Your task to perform on an android device: How do I get to the nearest Subway? Image 0: 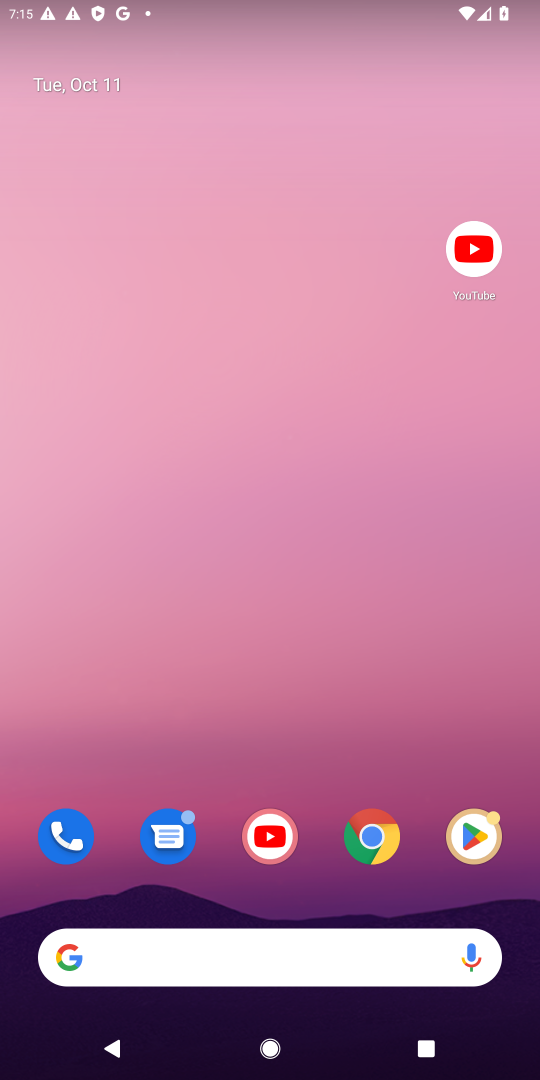
Step 0: click (375, 835)
Your task to perform on an android device: How do I get to the nearest Subway? Image 1: 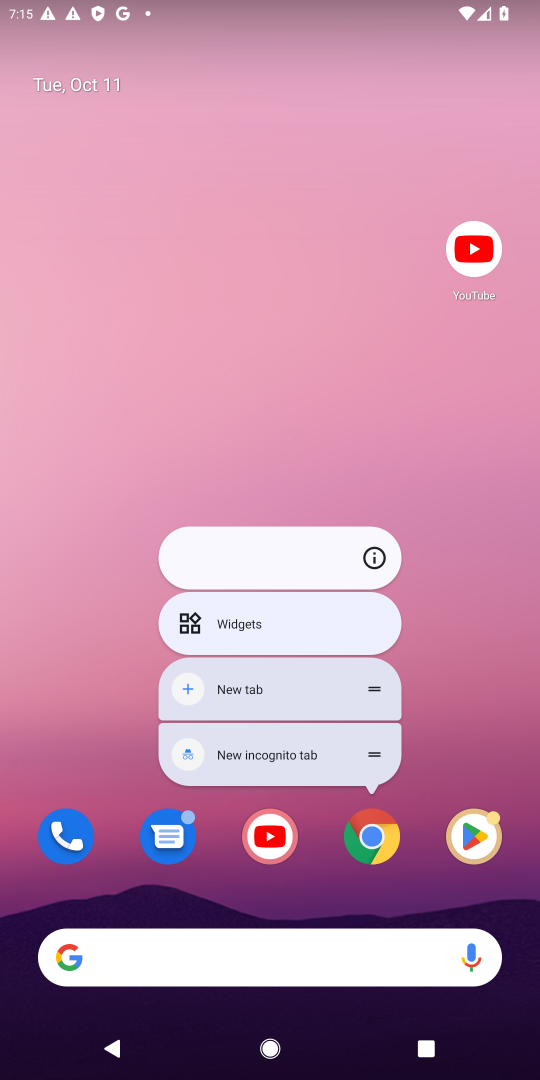
Step 1: click (372, 846)
Your task to perform on an android device: How do I get to the nearest Subway? Image 2: 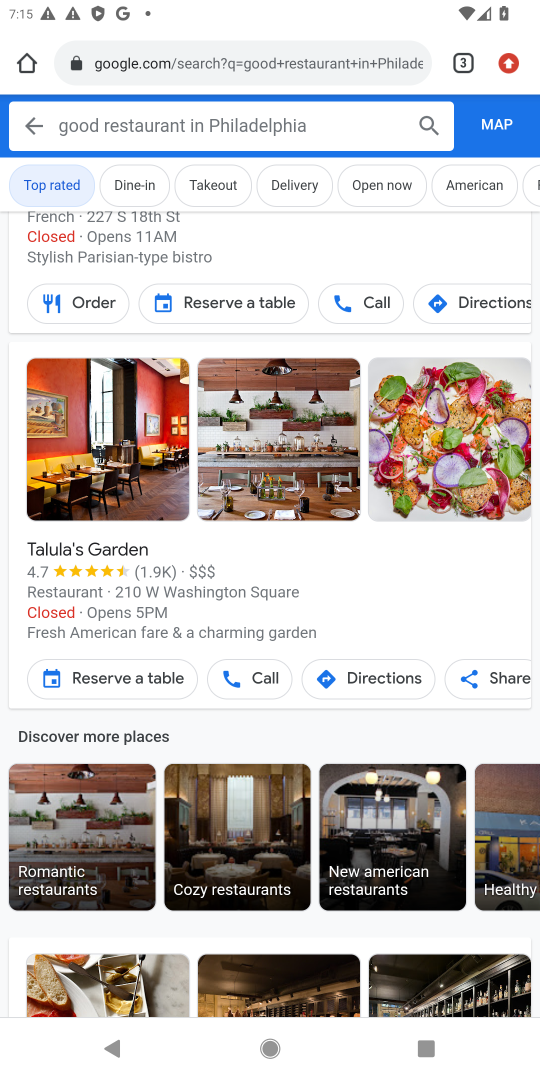
Step 2: click (245, 53)
Your task to perform on an android device: How do I get to the nearest Subway? Image 3: 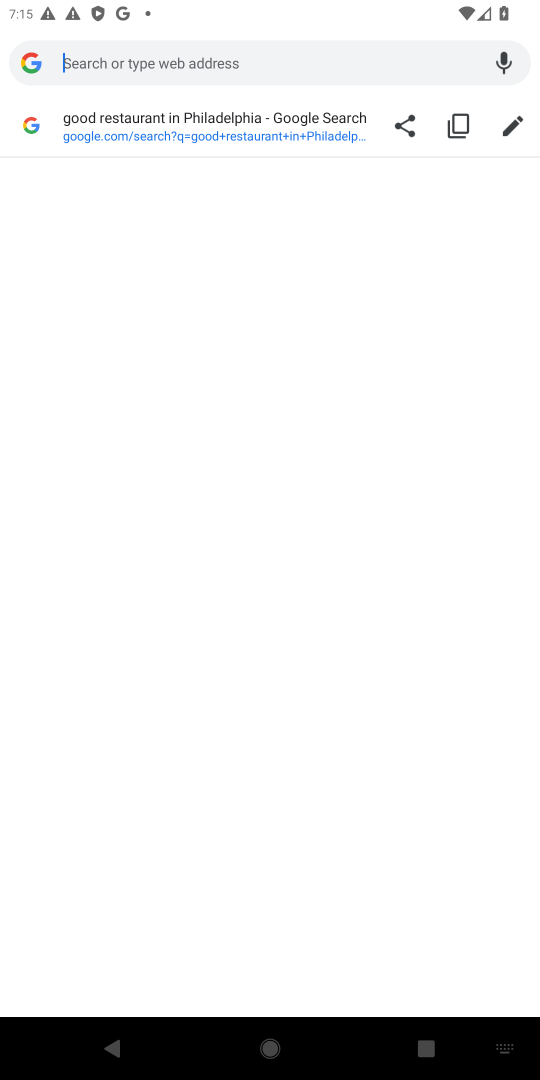
Step 3: press enter
Your task to perform on an android device: How do I get to the nearest Subway? Image 4: 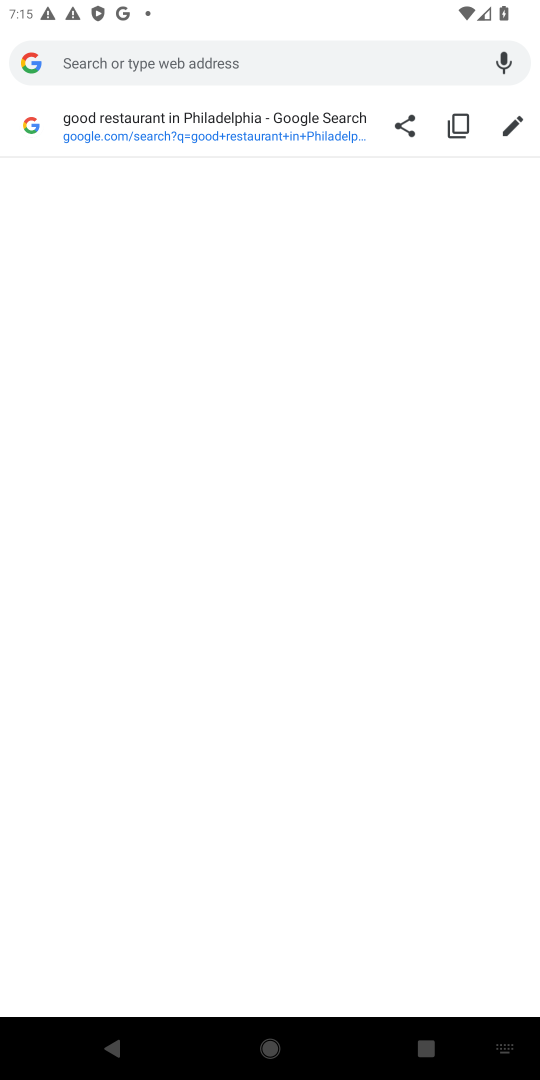
Step 4: type "How do I get to the nearest Subway"
Your task to perform on an android device: How do I get to the nearest Subway? Image 5: 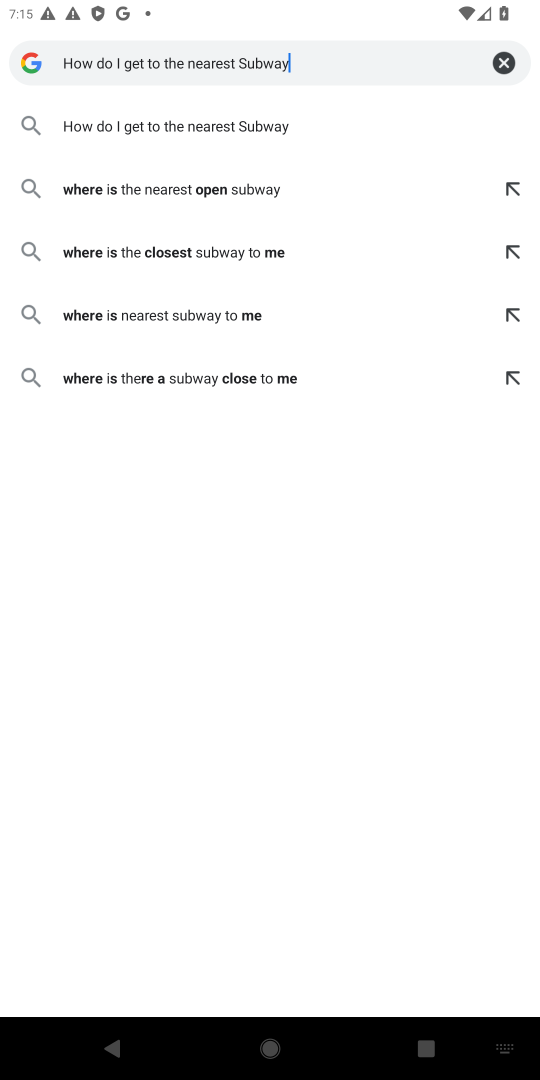
Step 5: click (259, 119)
Your task to perform on an android device: How do I get to the nearest Subway? Image 6: 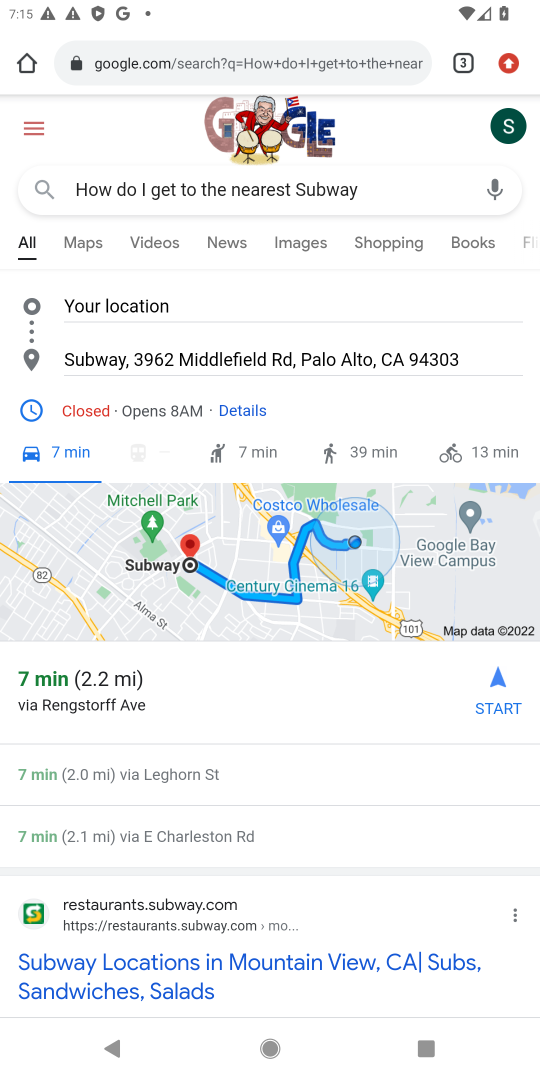
Step 6: task complete